Your task to perform on an android device: search for starred emails in the gmail app Image 0: 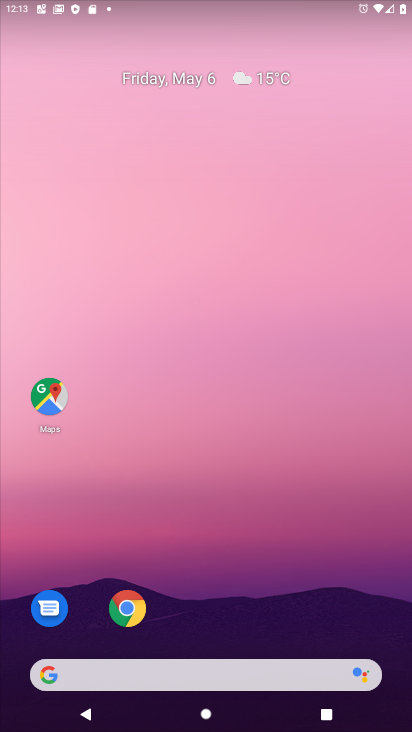
Step 0: drag from (217, 635) to (223, 165)
Your task to perform on an android device: search for starred emails in the gmail app Image 1: 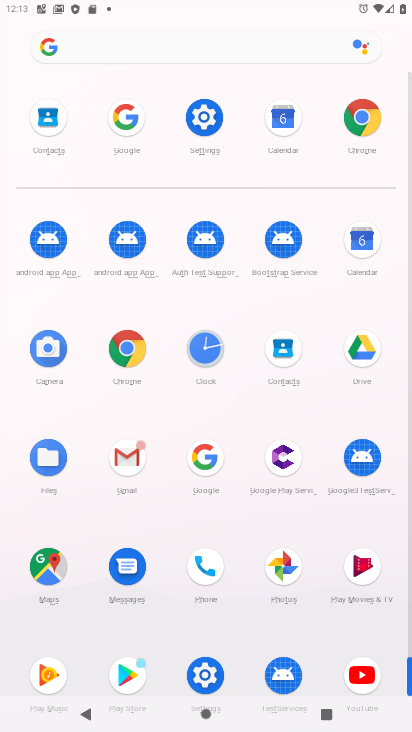
Step 1: click (137, 459)
Your task to perform on an android device: search for starred emails in the gmail app Image 2: 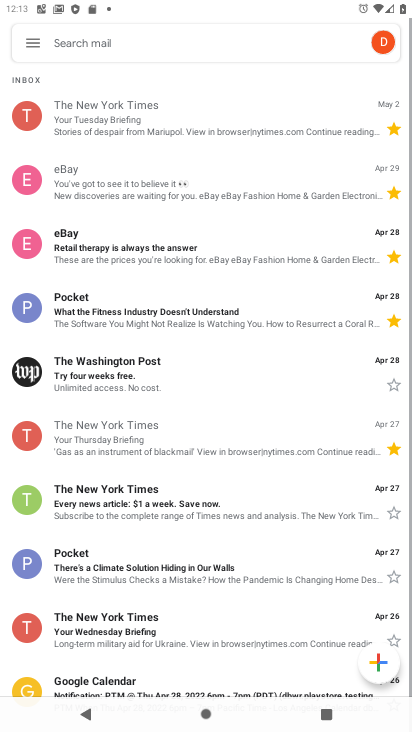
Step 2: click (30, 41)
Your task to perform on an android device: search for starred emails in the gmail app Image 3: 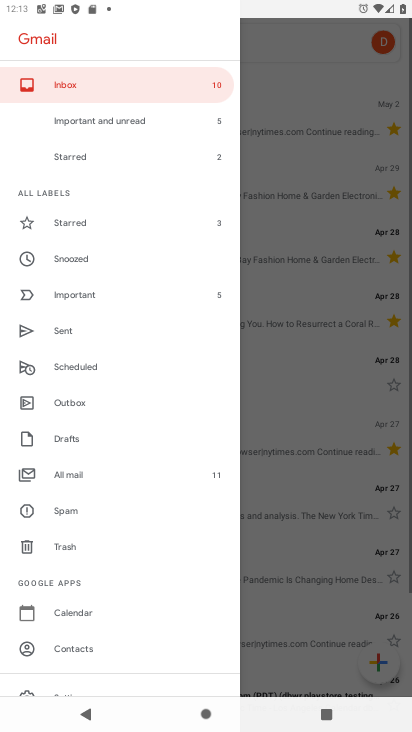
Step 3: click (79, 221)
Your task to perform on an android device: search for starred emails in the gmail app Image 4: 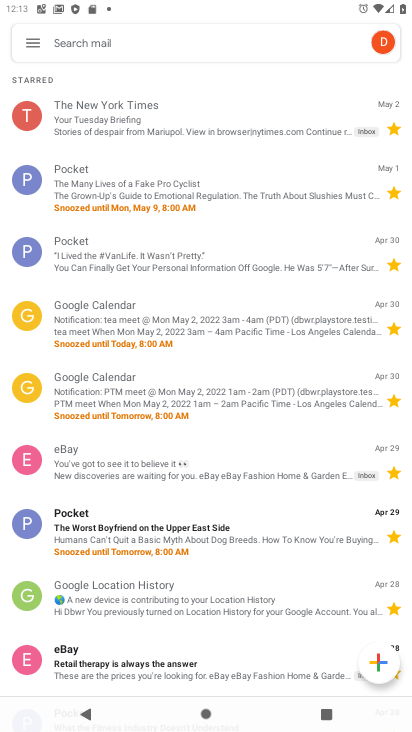
Step 4: task complete